Your task to perform on an android device: turn smart compose on in the gmail app Image 0: 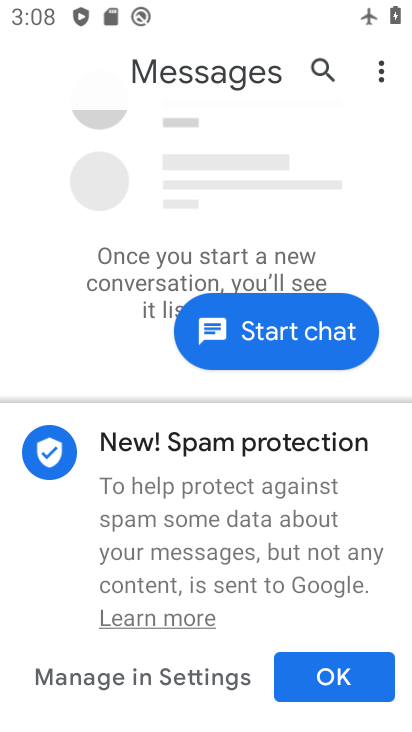
Step 0: press home button
Your task to perform on an android device: turn smart compose on in the gmail app Image 1: 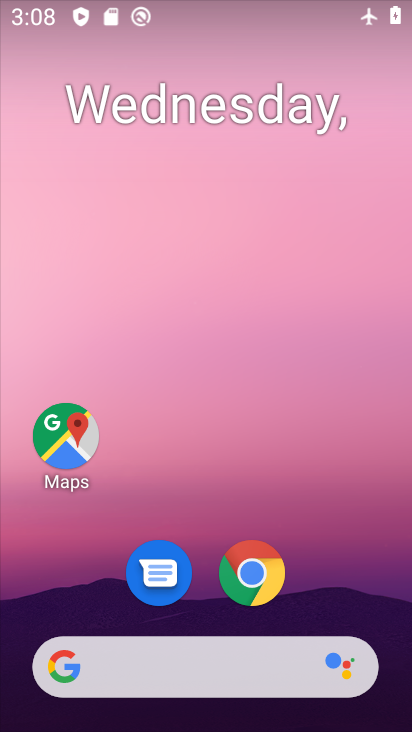
Step 1: click (220, 387)
Your task to perform on an android device: turn smart compose on in the gmail app Image 2: 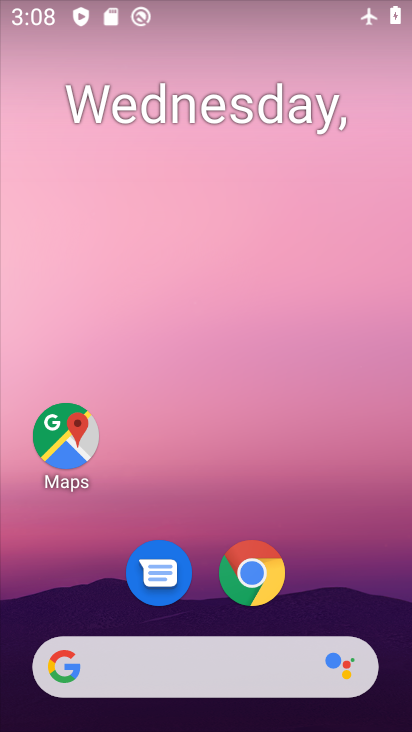
Step 2: drag from (170, 590) to (174, 262)
Your task to perform on an android device: turn smart compose on in the gmail app Image 3: 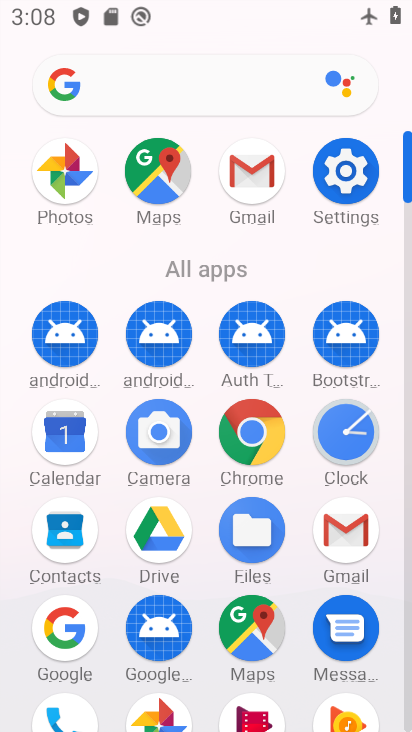
Step 3: click (260, 199)
Your task to perform on an android device: turn smart compose on in the gmail app Image 4: 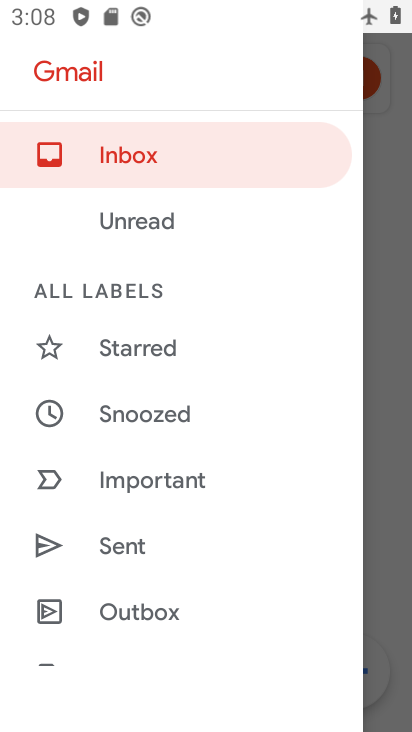
Step 4: drag from (149, 674) to (164, 270)
Your task to perform on an android device: turn smart compose on in the gmail app Image 5: 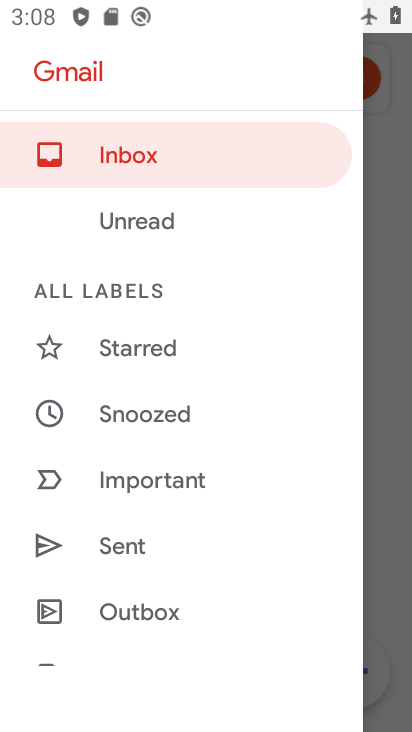
Step 5: drag from (198, 319) to (202, 206)
Your task to perform on an android device: turn smart compose on in the gmail app Image 6: 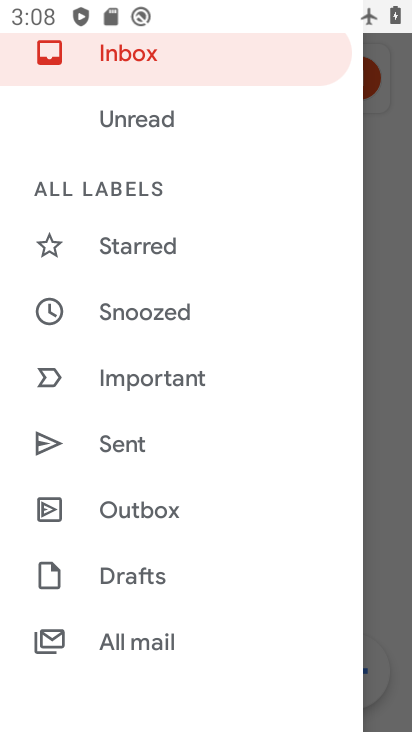
Step 6: drag from (92, 696) to (114, 358)
Your task to perform on an android device: turn smart compose on in the gmail app Image 7: 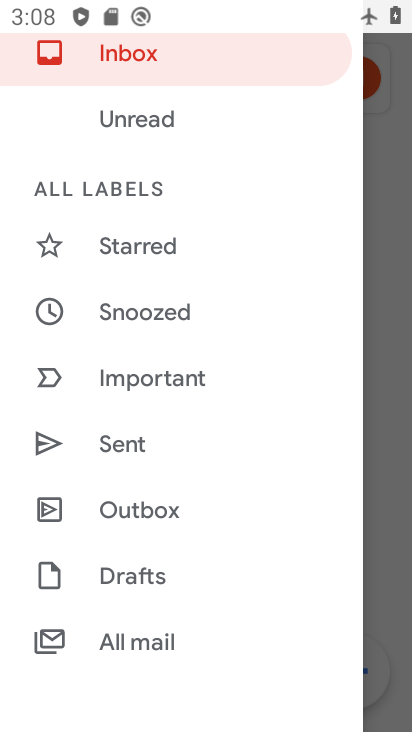
Step 7: drag from (139, 659) to (157, 334)
Your task to perform on an android device: turn smart compose on in the gmail app Image 8: 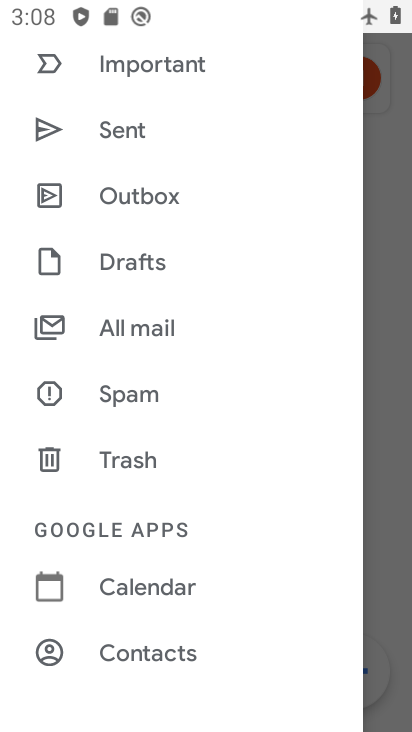
Step 8: drag from (136, 657) to (129, 241)
Your task to perform on an android device: turn smart compose on in the gmail app Image 9: 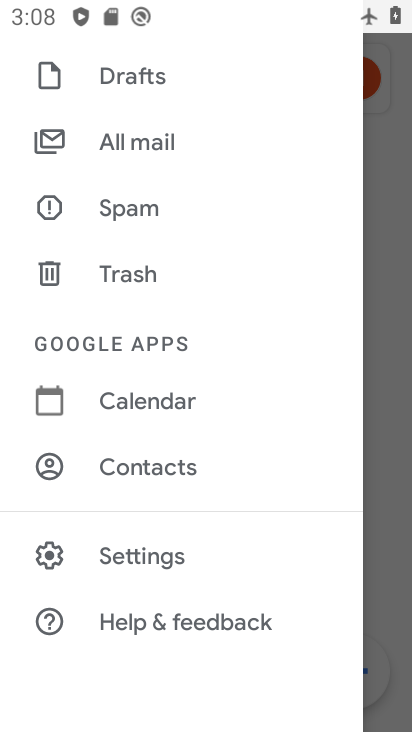
Step 9: click (129, 560)
Your task to perform on an android device: turn smart compose on in the gmail app Image 10: 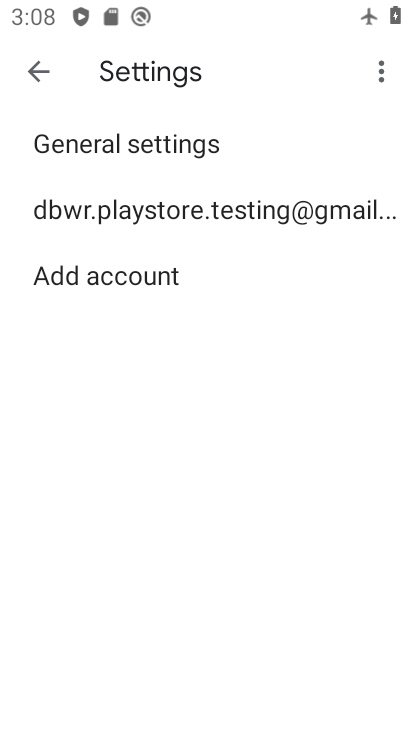
Step 10: click (101, 198)
Your task to perform on an android device: turn smart compose on in the gmail app Image 11: 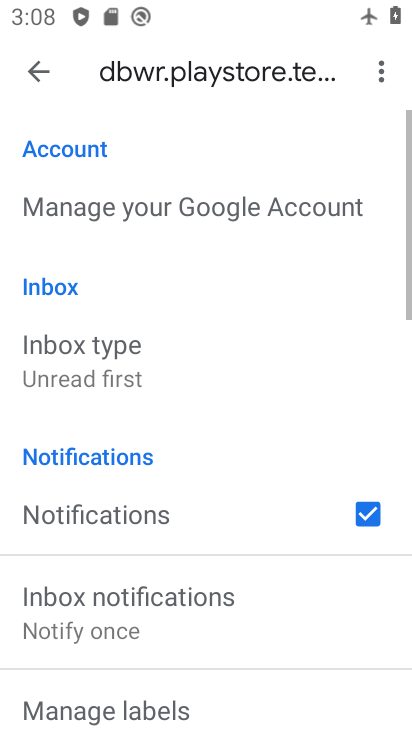
Step 11: task complete